Your task to perform on an android device: Go to CNN.com Image 0: 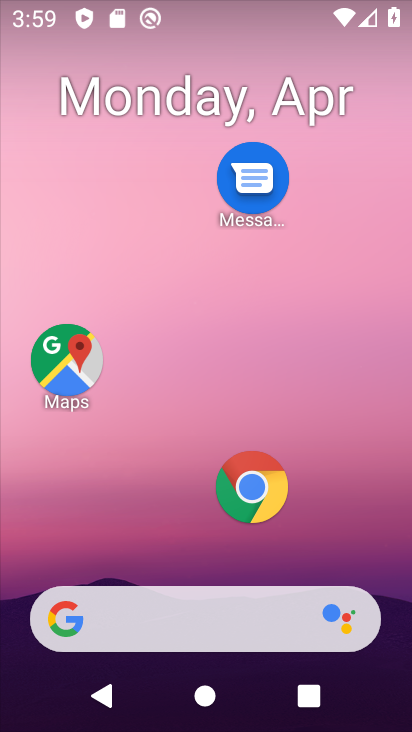
Step 0: click (260, 499)
Your task to perform on an android device: Go to CNN.com Image 1: 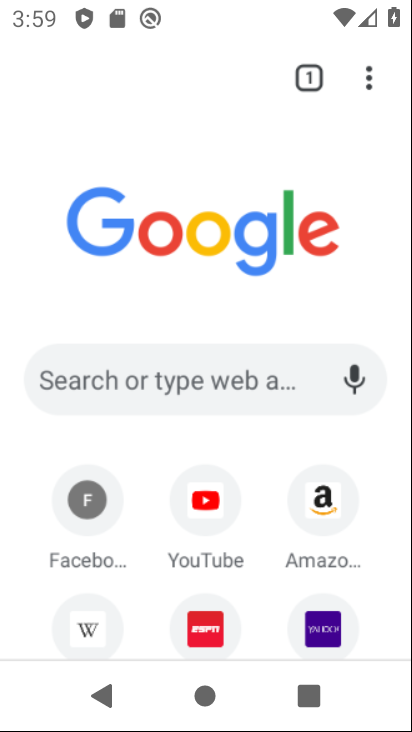
Step 1: click (186, 382)
Your task to perform on an android device: Go to CNN.com Image 2: 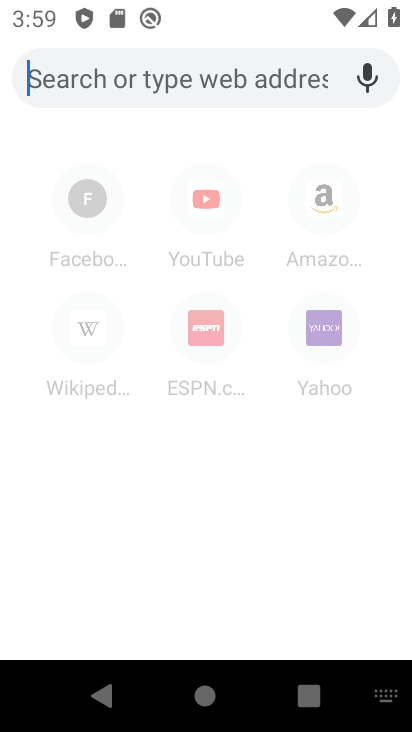
Step 2: type "CNN.com"
Your task to perform on an android device: Go to CNN.com Image 3: 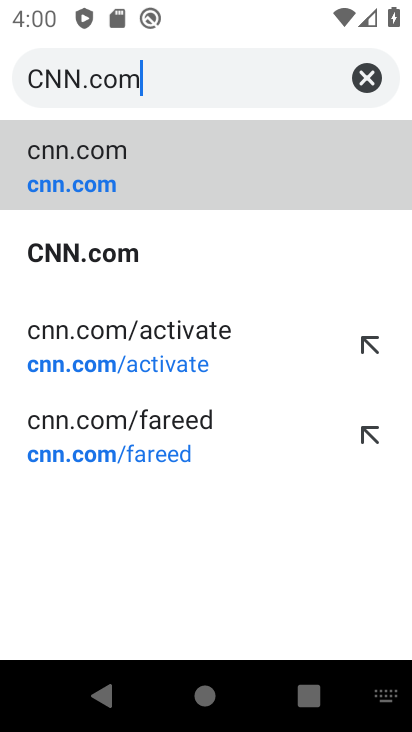
Step 3: click (127, 162)
Your task to perform on an android device: Go to CNN.com Image 4: 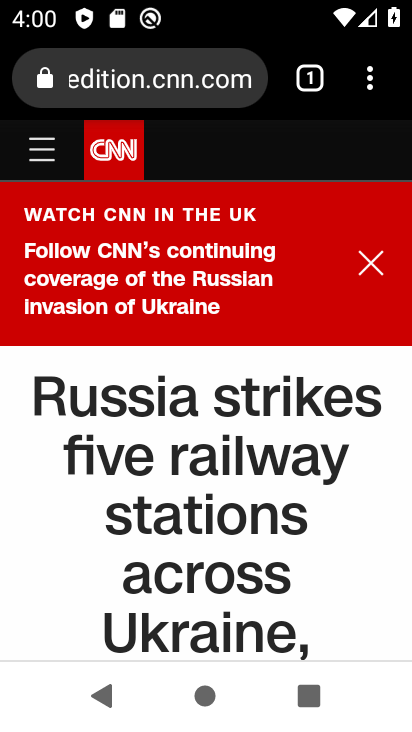
Step 4: task complete